Your task to perform on an android device: open a bookmark in the chrome app Image 0: 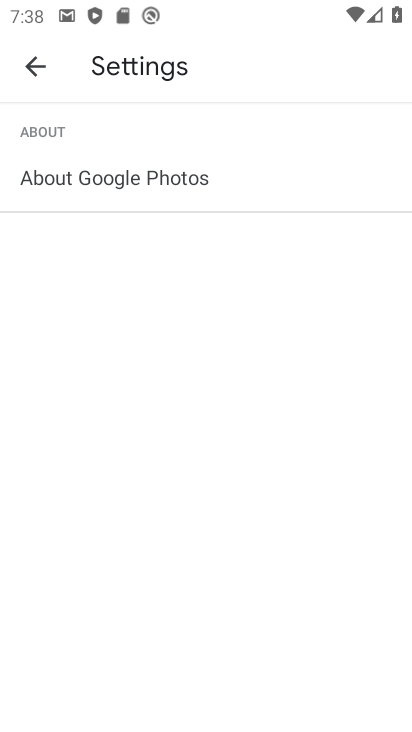
Step 0: press home button
Your task to perform on an android device: open a bookmark in the chrome app Image 1: 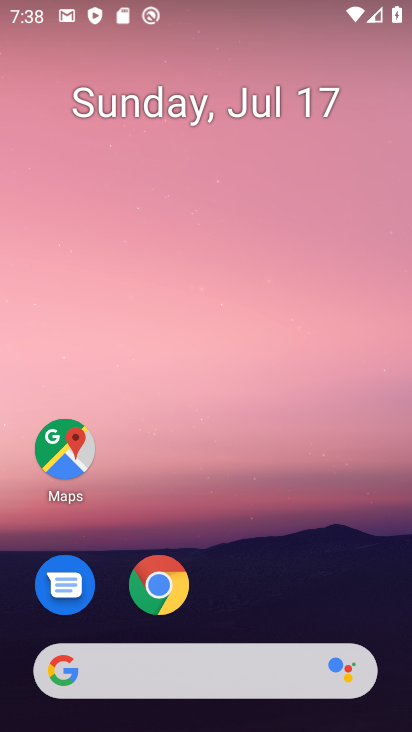
Step 1: click (165, 590)
Your task to perform on an android device: open a bookmark in the chrome app Image 2: 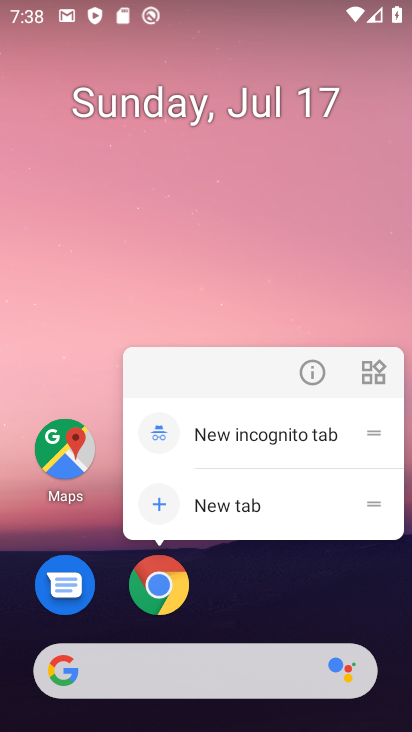
Step 2: click (162, 595)
Your task to perform on an android device: open a bookmark in the chrome app Image 3: 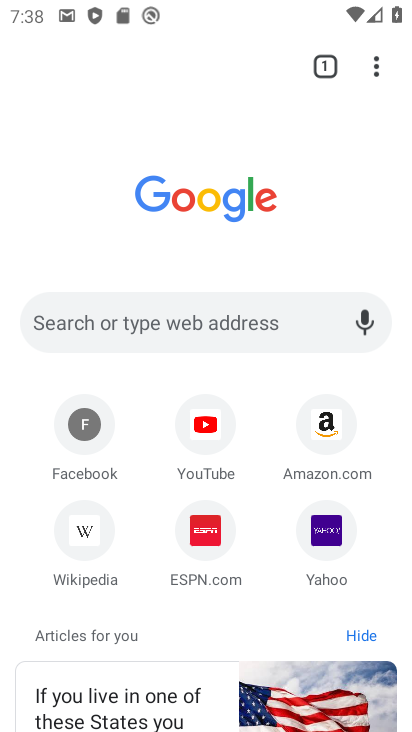
Step 3: task complete